Your task to perform on an android device: change keyboard looks Image 0: 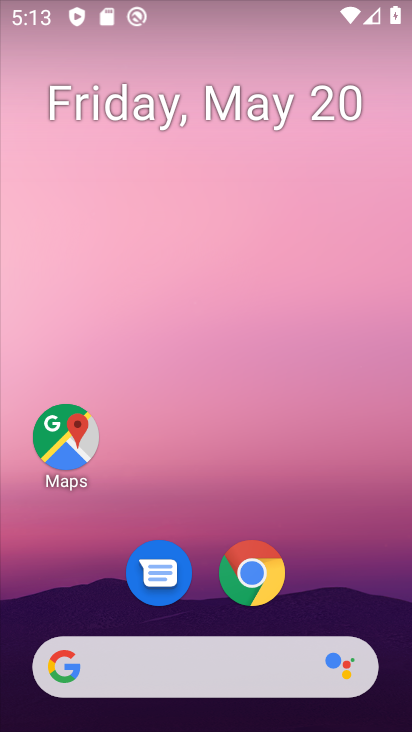
Step 0: drag from (290, 408) to (168, 15)
Your task to perform on an android device: change keyboard looks Image 1: 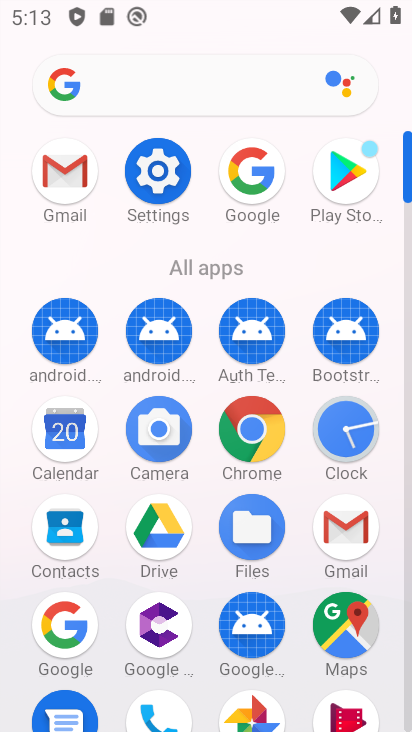
Step 1: click (161, 187)
Your task to perform on an android device: change keyboard looks Image 2: 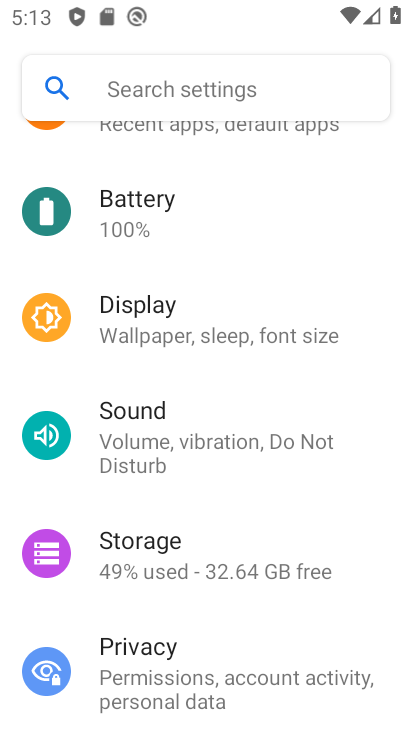
Step 2: drag from (241, 578) to (209, 85)
Your task to perform on an android device: change keyboard looks Image 3: 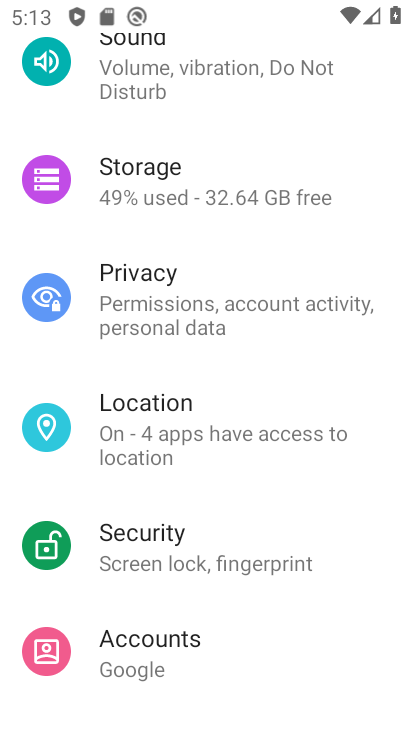
Step 3: drag from (191, 614) to (198, 227)
Your task to perform on an android device: change keyboard looks Image 4: 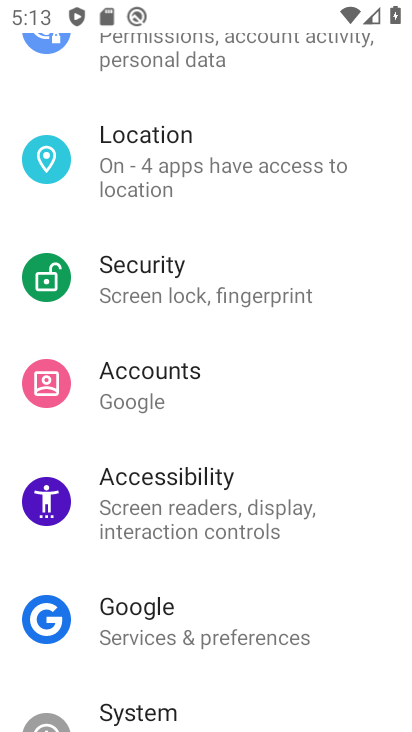
Step 4: drag from (227, 493) to (186, 199)
Your task to perform on an android device: change keyboard looks Image 5: 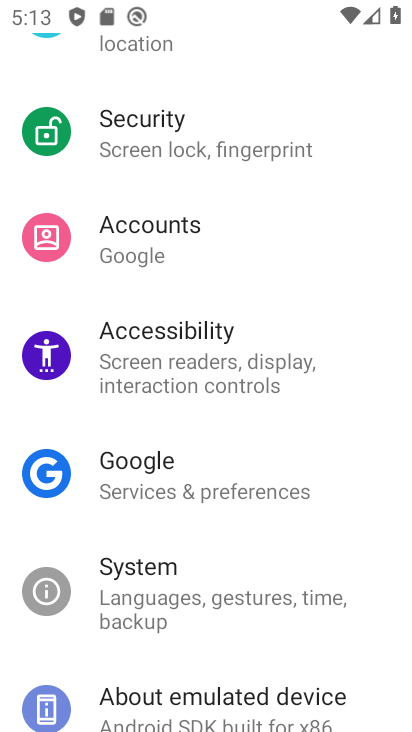
Step 5: click (179, 570)
Your task to perform on an android device: change keyboard looks Image 6: 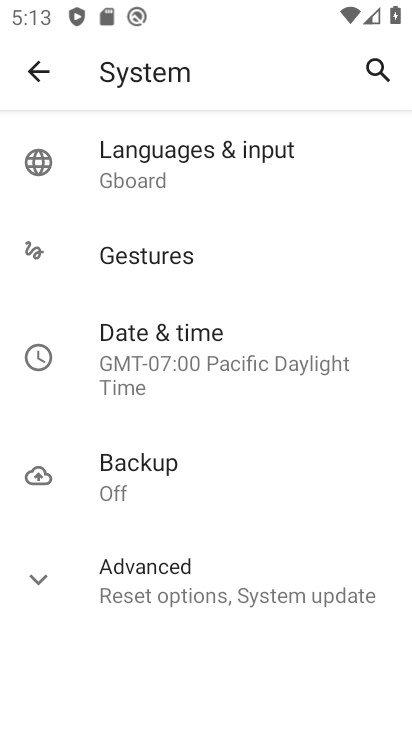
Step 6: click (204, 158)
Your task to perform on an android device: change keyboard looks Image 7: 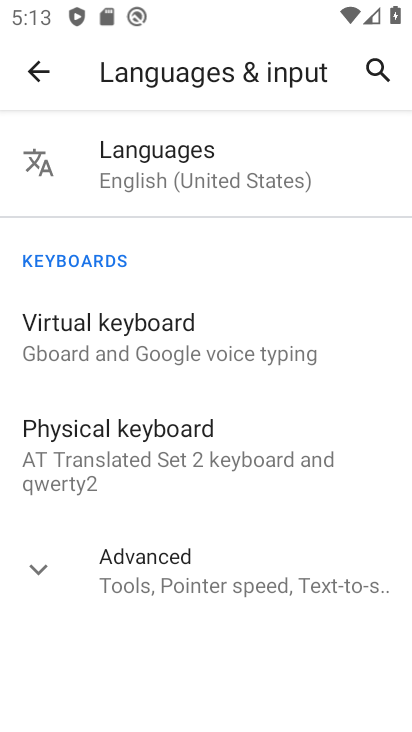
Step 7: click (160, 348)
Your task to perform on an android device: change keyboard looks Image 8: 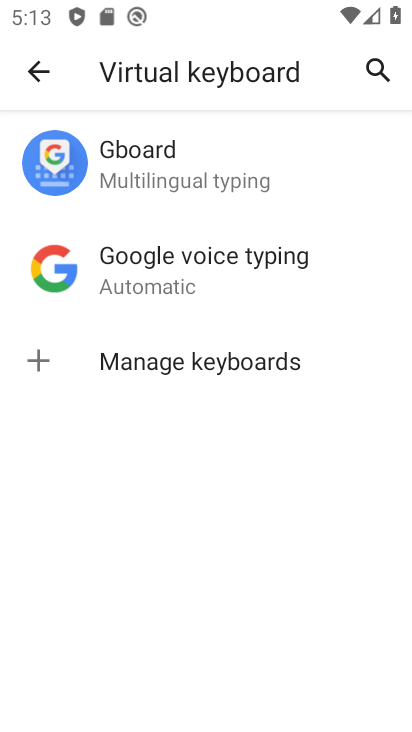
Step 8: click (170, 146)
Your task to perform on an android device: change keyboard looks Image 9: 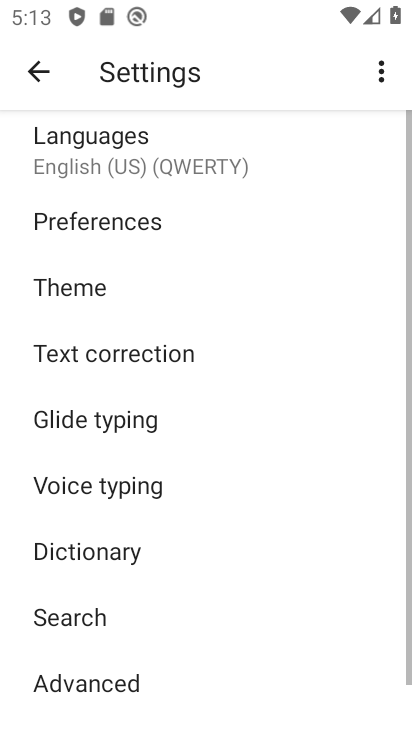
Step 9: click (143, 309)
Your task to perform on an android device: change keyboard looks Image 10: 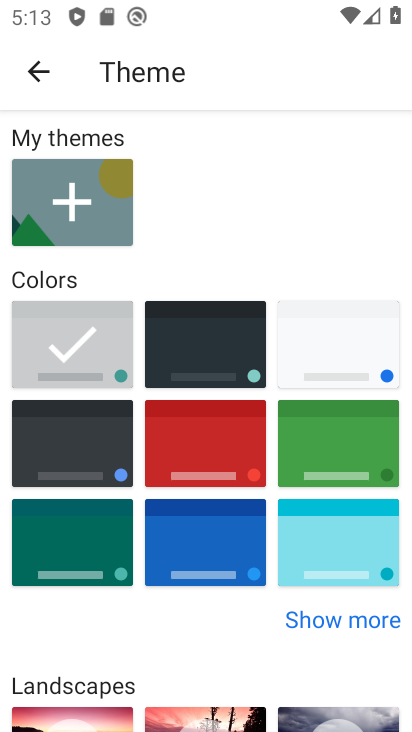
Step 10: click (223, 561)
Your task to perform on an android device: change keyboard looks Image 11: 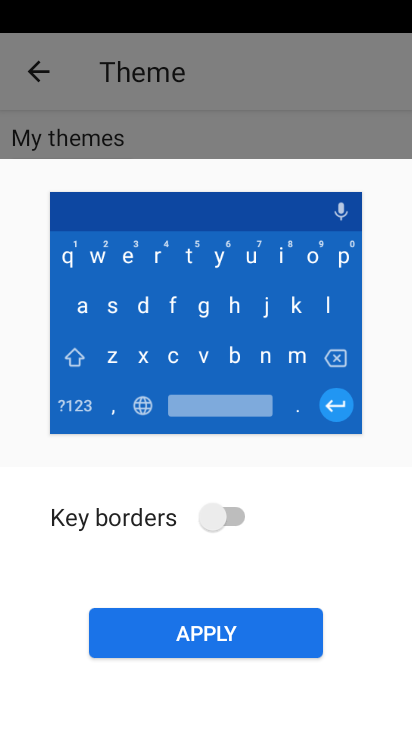
Step 11: click (211, 642)
Your task to perform on an android device: change keyboard looks Image 12: 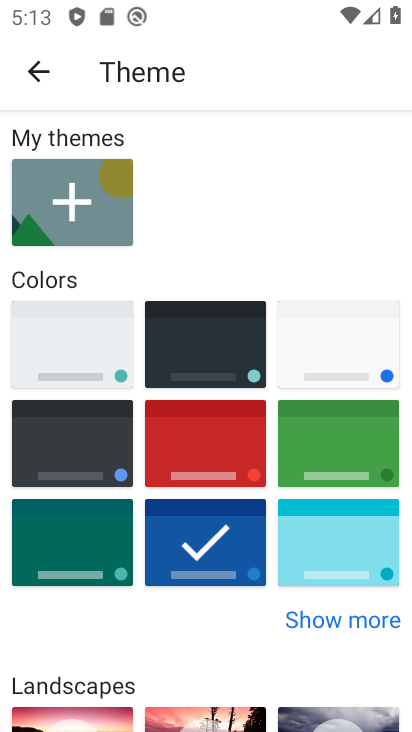
Step 12: task complete